Your task to perform on an android device: What's the weather today? Image 0: 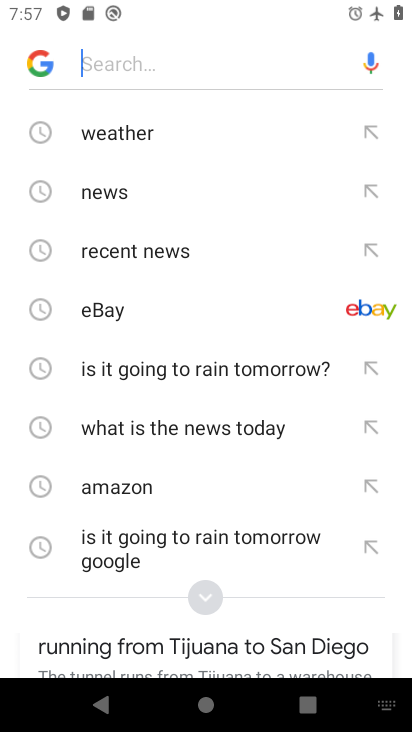
Step 0: press back button
Your task to perform on an android device: What's the weather today? Image 1: 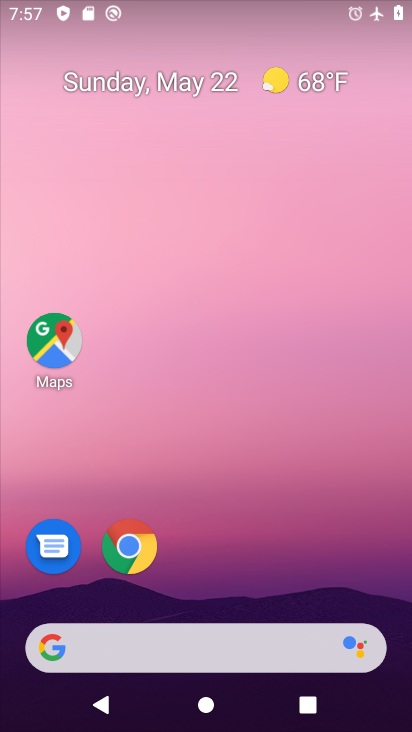
Step 1: drag from (259, 661) to (171, 8)
Your task to perform on an android device: What's the weather today? Image 2: 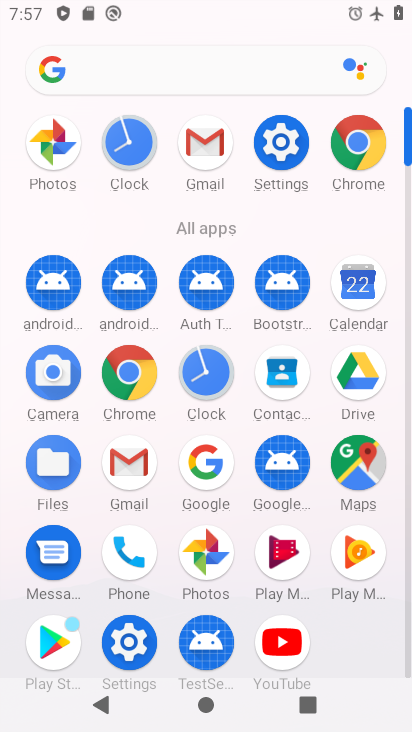
Step 2: press back button
Your task to perform on an android device: What's the weather today? Image 3: 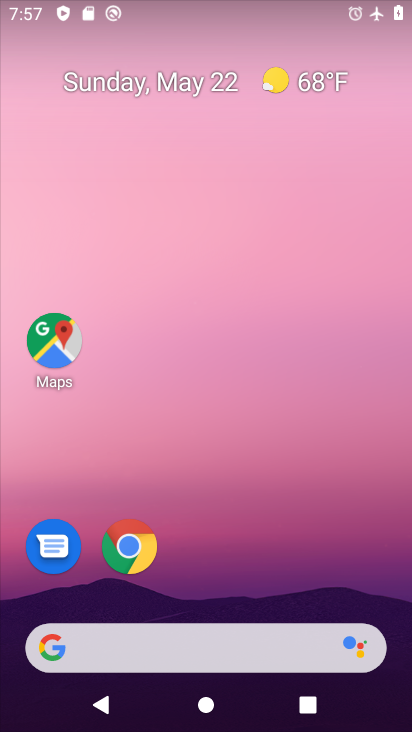
Step 3: drag from (9, 202) to (403, 241)
Your task to perform on an android device: What's the weather today? Image 4: 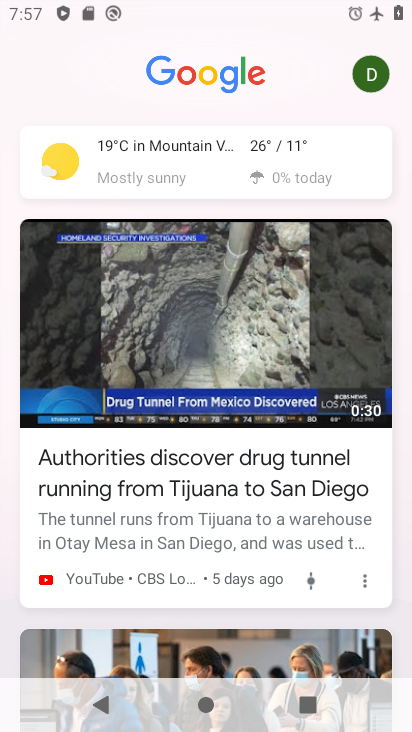
Step 4: click (190, 176)
Your task to perform on an android device: What's the weather today? Image 5: 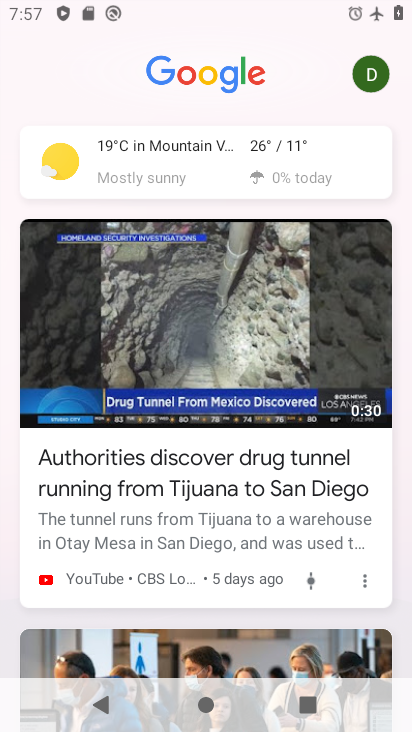
Step 5: click (192, 174)
Your task to perform on an android device: What's the weather today? Image 6: 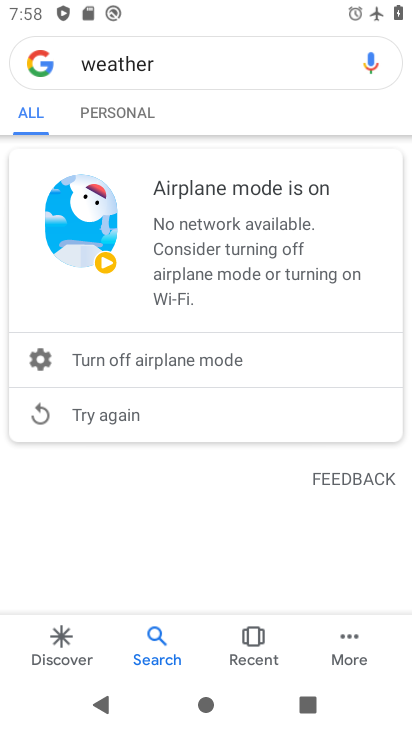
Step 6: task complete